Your task to perform on an android device: search for starred emails in the gmail app Image 0: 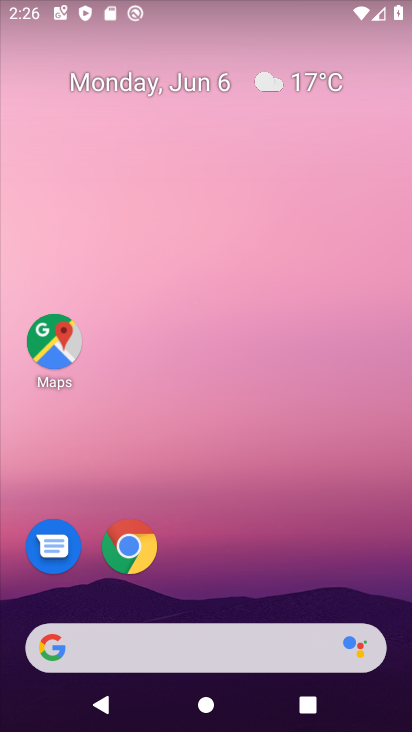
Step 0: drag from (292, 571) to (278, 79)
Your task to perform on an android device: search for starred emails in the gmail app Image 1: 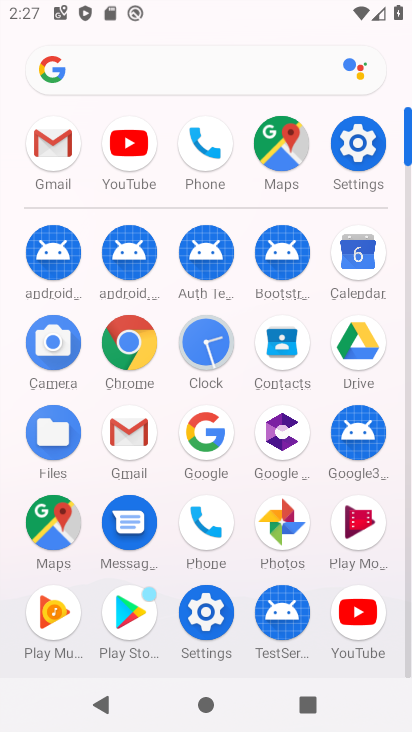
Step 1: click (162, 196)
Your task to perform on an android device: search for starred emails in the gmail app Image 2: 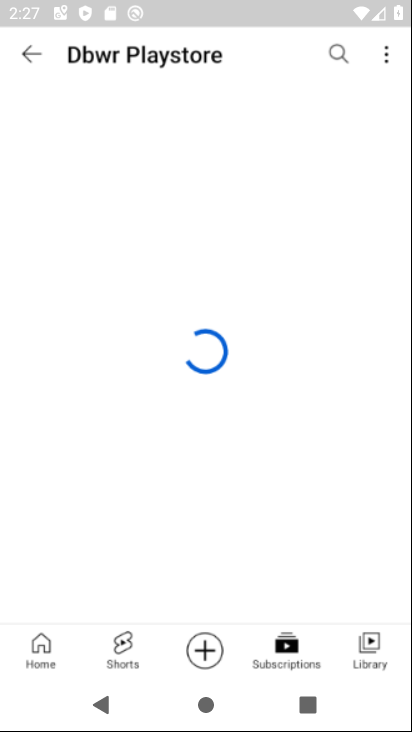
Step 2: click (36, 147)
Your task to perform on an android device: search for starred emails in the gmail app Image 3: 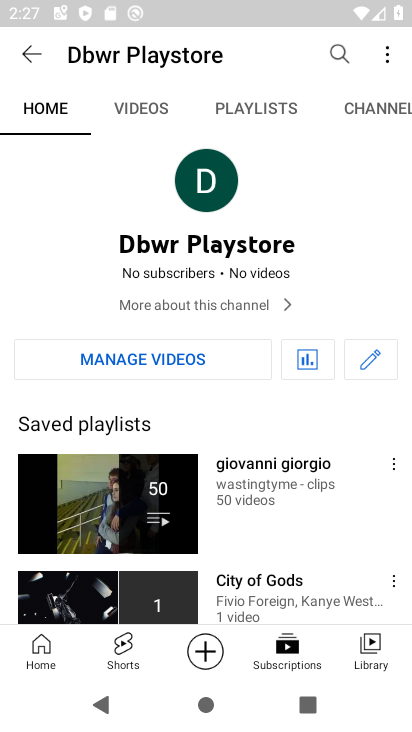
Step 3: click (27, 72)
Your task to perform on an android device: search for starred emails in the gmail app Image 4: 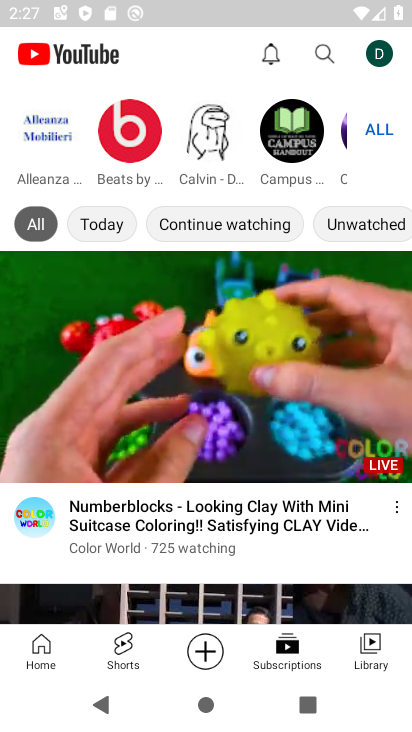
Step 4: press home button
Your task to perform on an android device: search for starred emails in the gmail app Image 5: 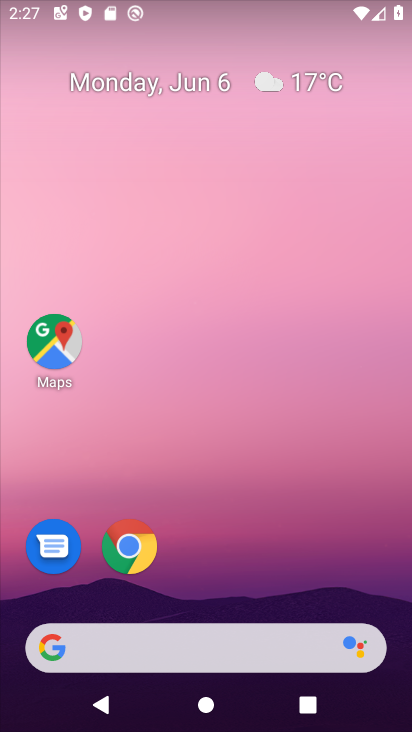
Step 5: drag from (316, 556) to (181, 71)
Your task to perform on an android device: search for starred emails in the gmail app Image 6: 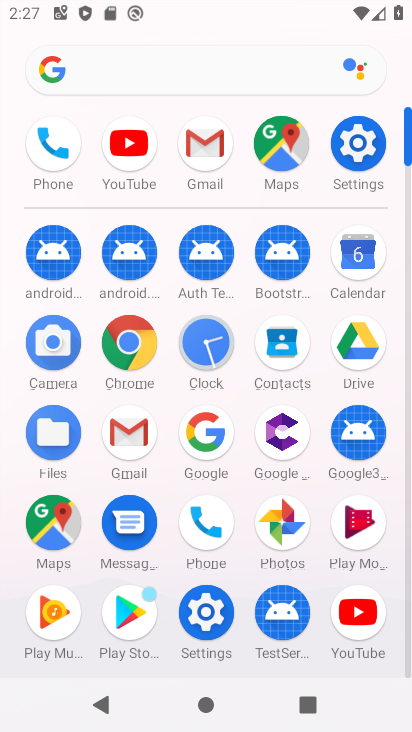
Step 6: click (216, 150)
Your task to perform on an android device: search for starred emails in the gmail app Image 7: 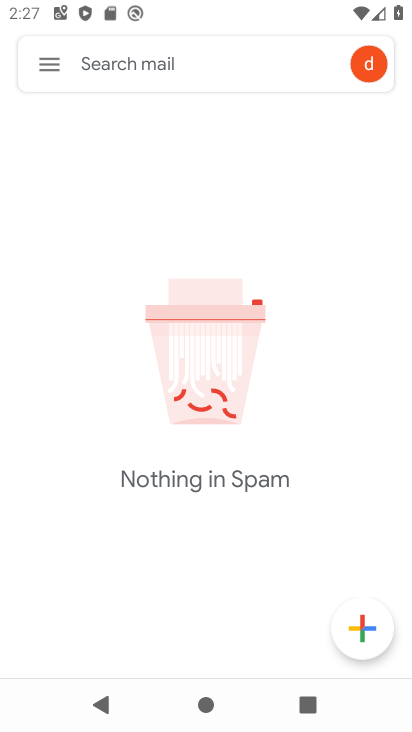
Step 7: click (51, 67)
Your task to perform on an android device: search for starred emails in the gmail app Image 8: 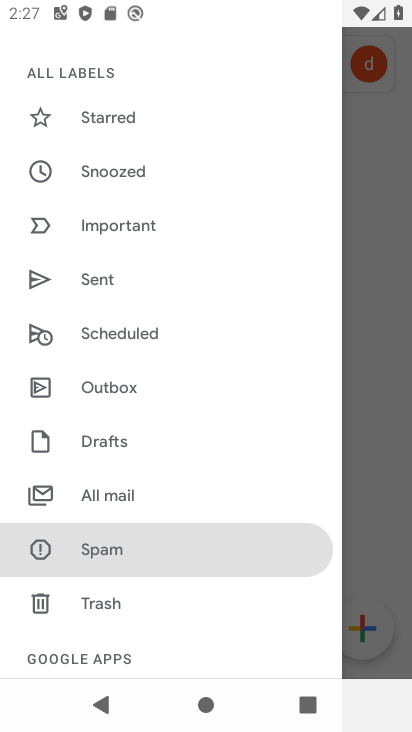
Step 8: task complete